Your task to perform on an android device: refresh tabs in the chrome app Image 0: 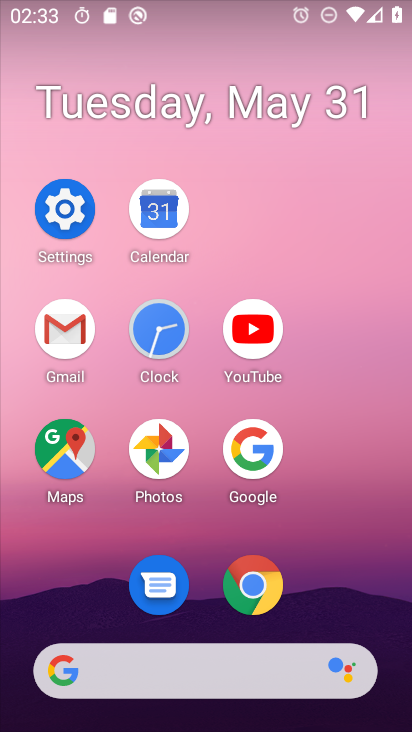
Step 0: click (252, 607)
Your task to perform on an android device: refresh tabs in the chrome app Image 1: 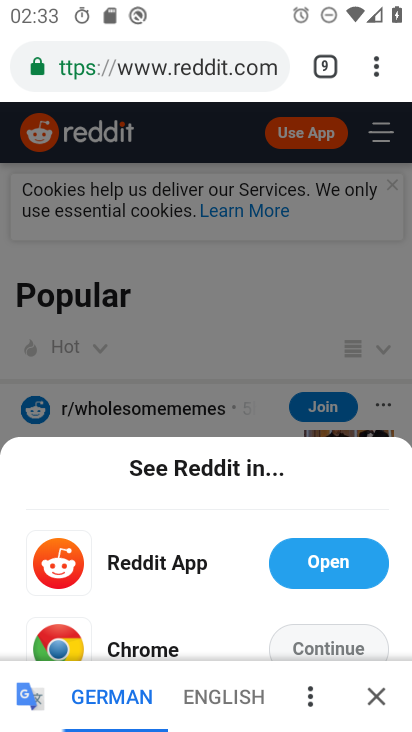
Step 1: click (375, 64)
Your task to perform on an android device: refresh tabs in the chrome app Image 2: 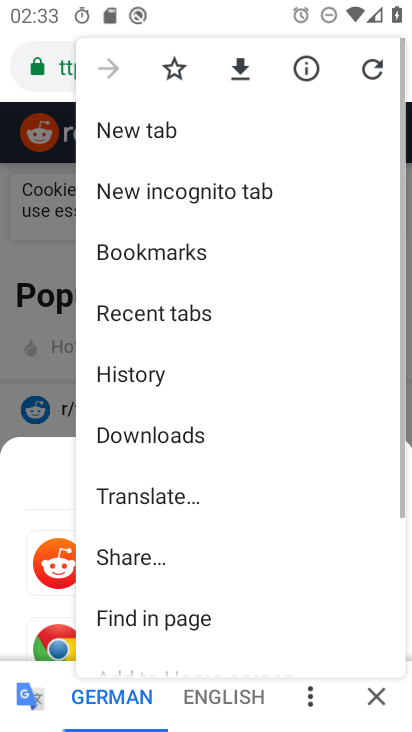
Step 2: click (382, 75)
Your task to perform on an android device: refresh tabs in the chrome app Image 3: 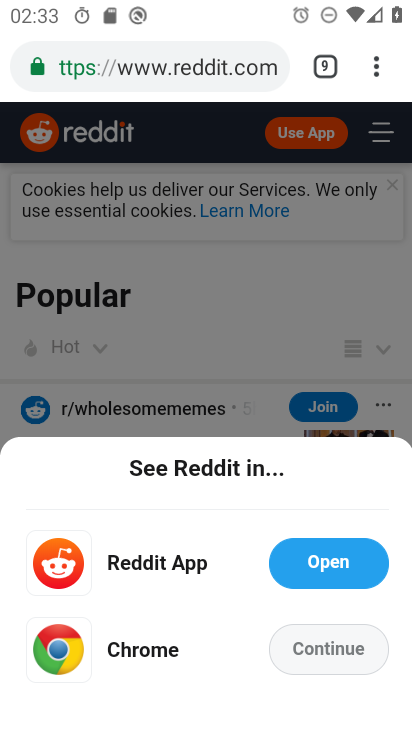
Step 3: click (376, 62)
Your task to perform on an android device: refresh tabs in the chrome app Image 4: 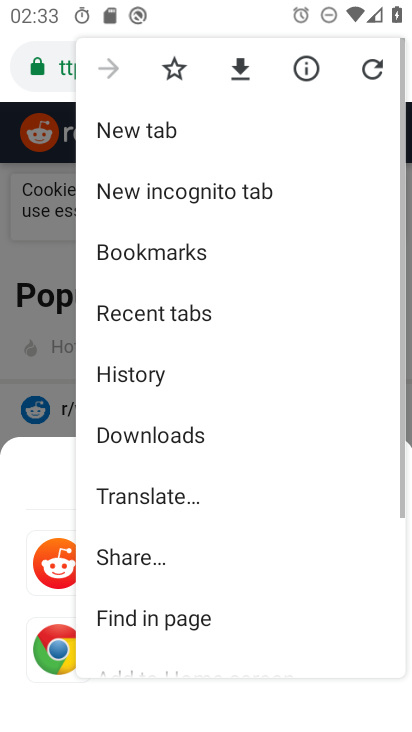
Step 4: click (380, 64)
Your task to perform on an android device: refresh tabs in the chrome app Image 5: 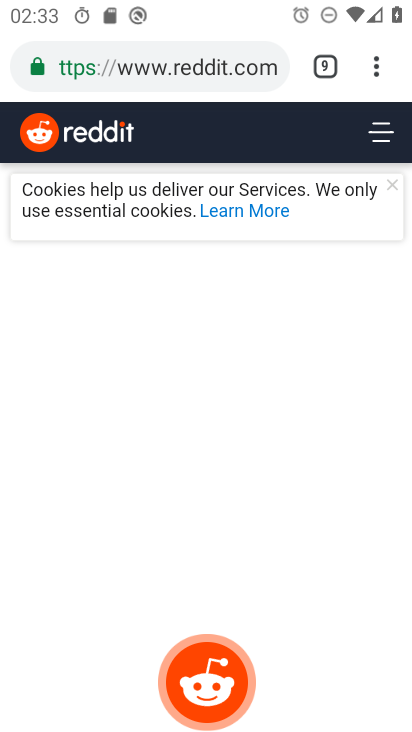
Step 5: task complete